Your task to perform on an android device: Open wifi settings Image 0: 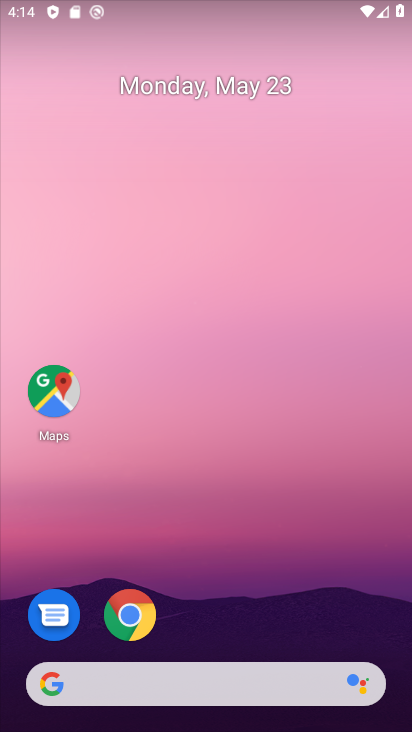
Step 0: drag from (266, 527) to (284, 27)
Your task to perform on an android device: Open wifi settings Image 1: 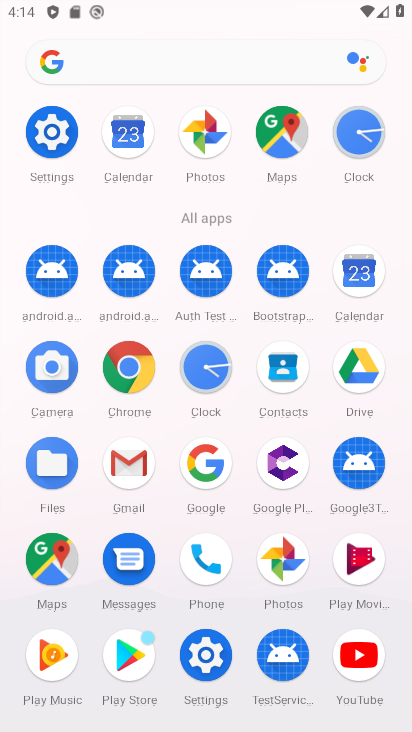
Step 1: click (57, 123)
Your task to perform on an android device: Open wifi settings Image 2: 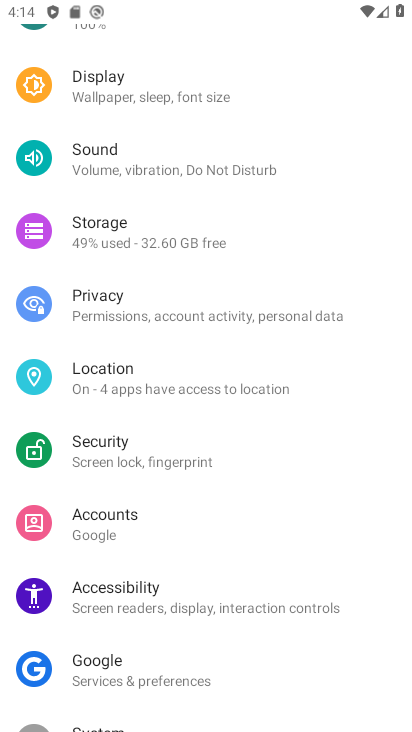
Step 2: drag from (210, 326) to (201, 574)
Your task to perform on an android device: Open wifi settings Image 3: 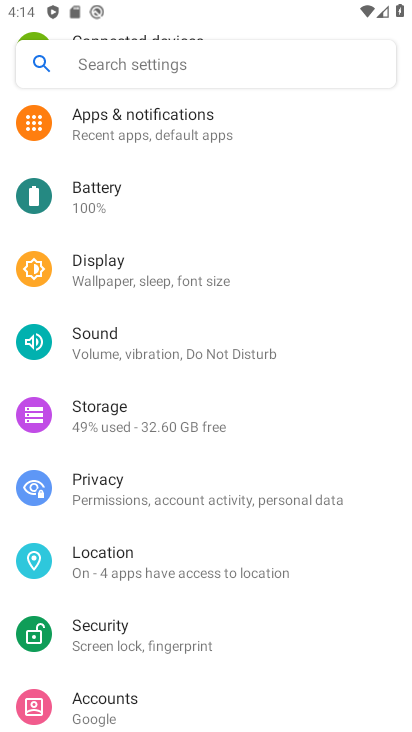
Step 3: drag from (207, 285) to (203, 620)
Your task to perform on an android device: Open wifi settings Image 4: 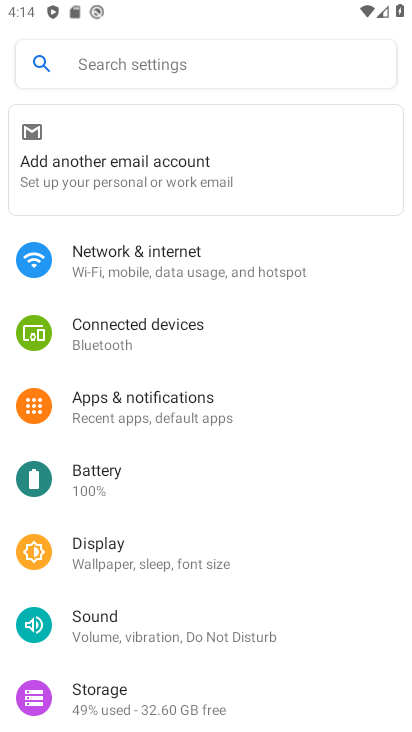
Step 4: drag from (200, 225) to (227, 555)
Your task to perform on an android device: Open wifi settings Image 5: 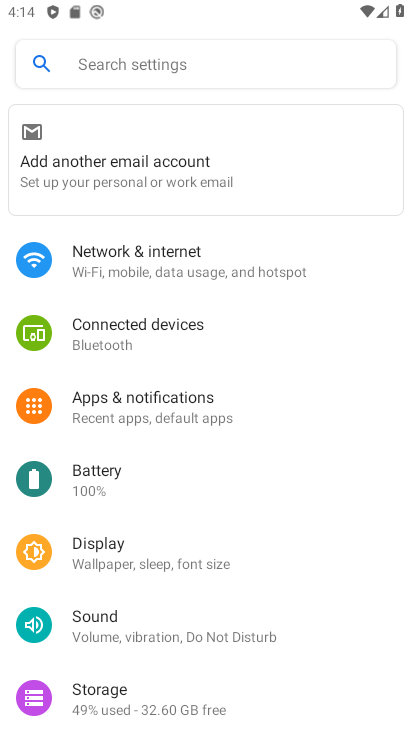
Step 5: click (194, 256)
Your task to perform on an android device: Open wifi settings Image 6: 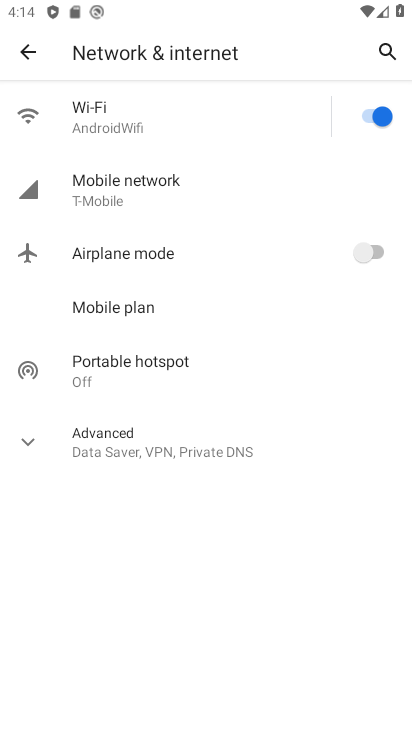
Step 6: click (111, 111)
Your task to perform on an android device: Open wifi settings Image 7: 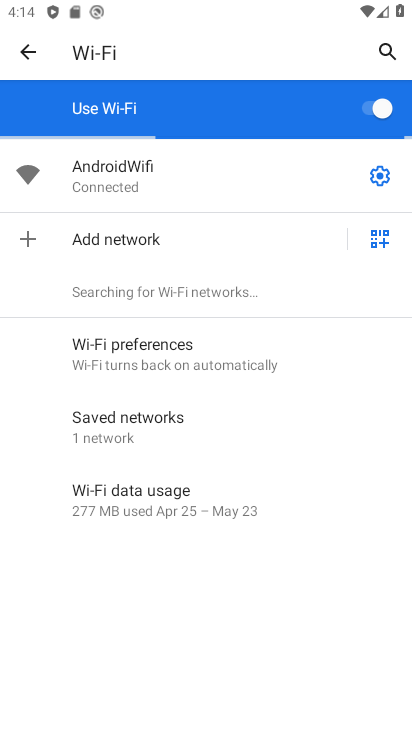
Step 7: task complete